Your task to perform on an android device: Go to internet settings Image 0: 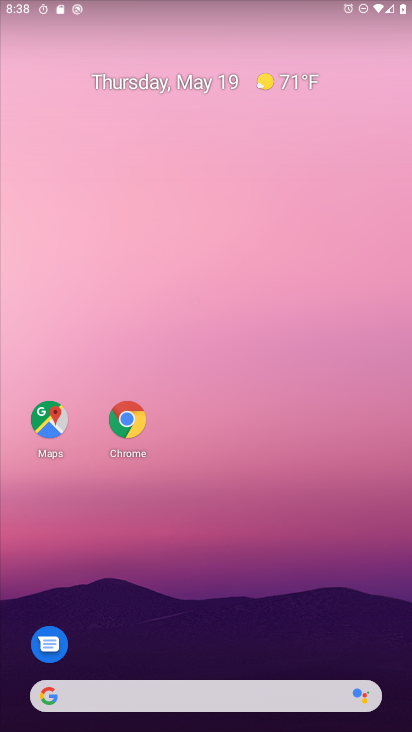
Step 0: drag from (167, 681) to (260, 208)
Your task to perform on an android device: Go to internet settings Image 1: 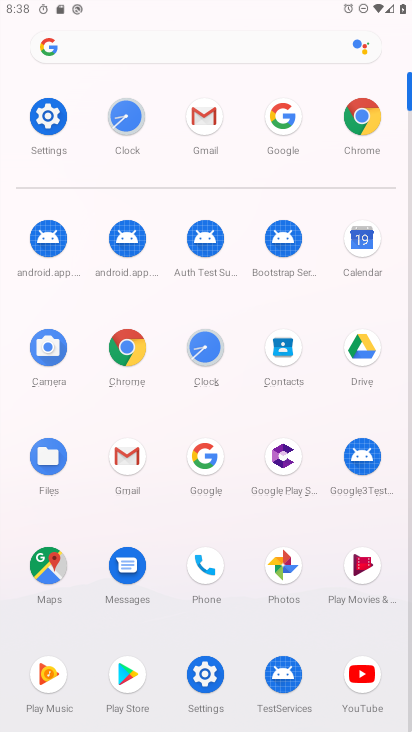
Step 1: click (48, 122)
Your task to perform on an android device: Go to internet settings Image 2: 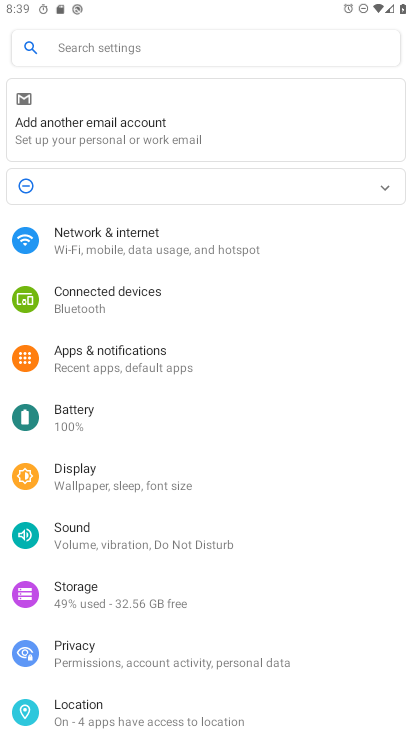
Step 2: click (138, 246)
Your task to perform on an android device: Go to internet settings Image 3: 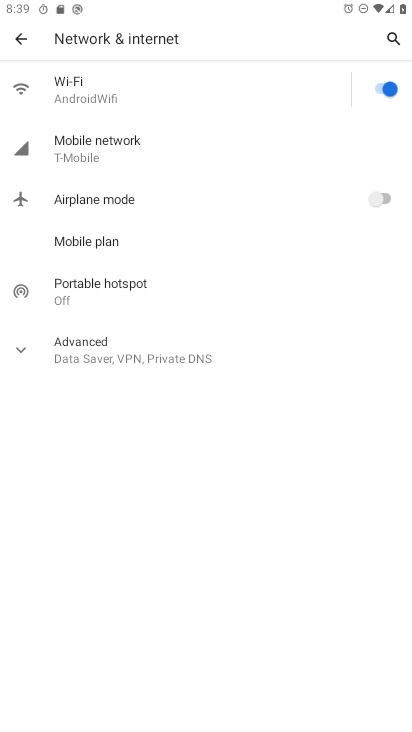
Step 3: click (126, 360)
Your task to perform on an android device: Go to internet settings Image 4: 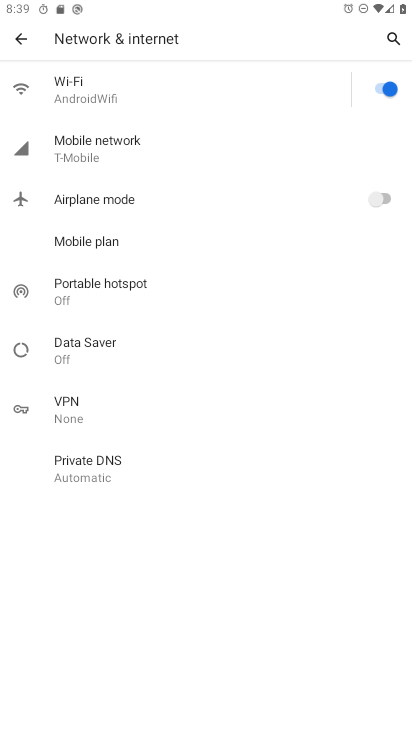
Step 4: click (86, 156)
Your task to perform on an android device: Go to internet settings Image 5: 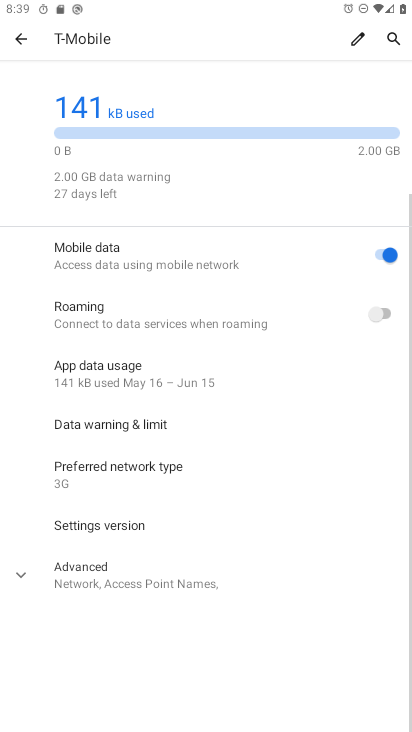
Step 5: click (101, 581)
Your task to perform on an android device: Go to internet settings Image 6: 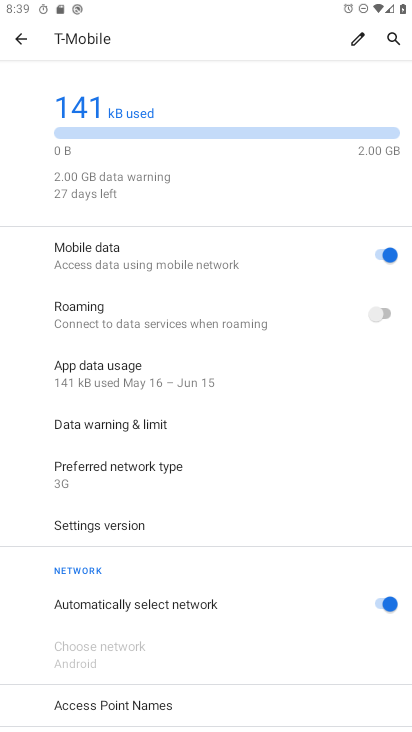
Step 6: task complete